Your task to perform on an android device: Go to Maps Image 0: 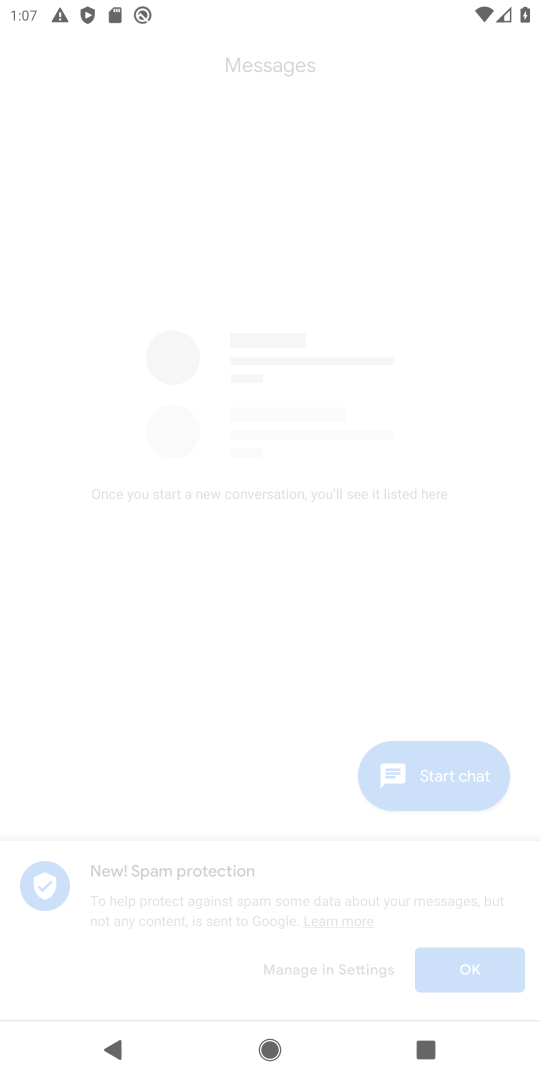
Step 0: drag from (505, 907) to (455, 571)
Your task to perform on an android device: Go to Maps Image 1: 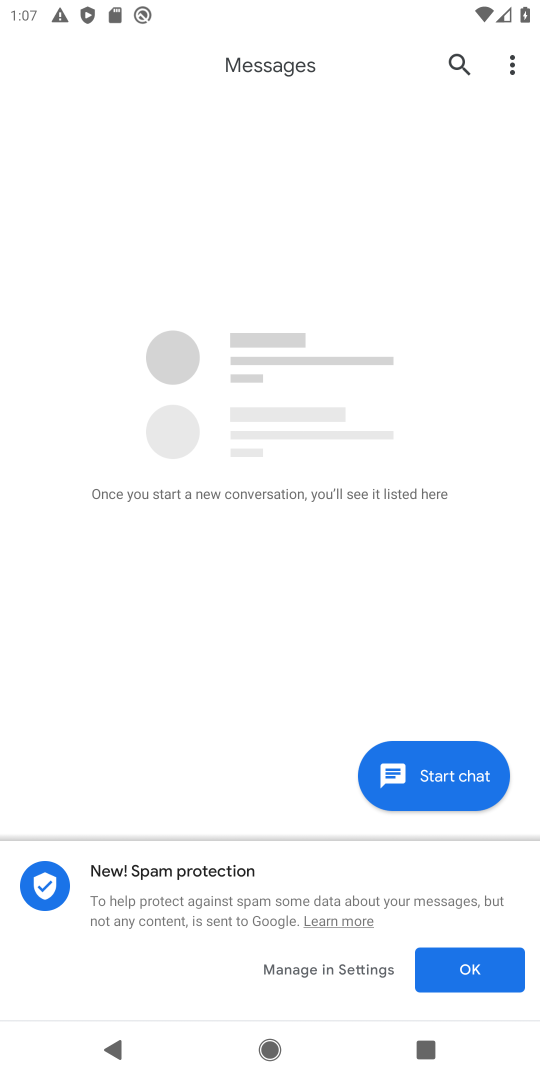
Step 1: press home button
Your task to perform on an android device: Go to Maps Image 2: 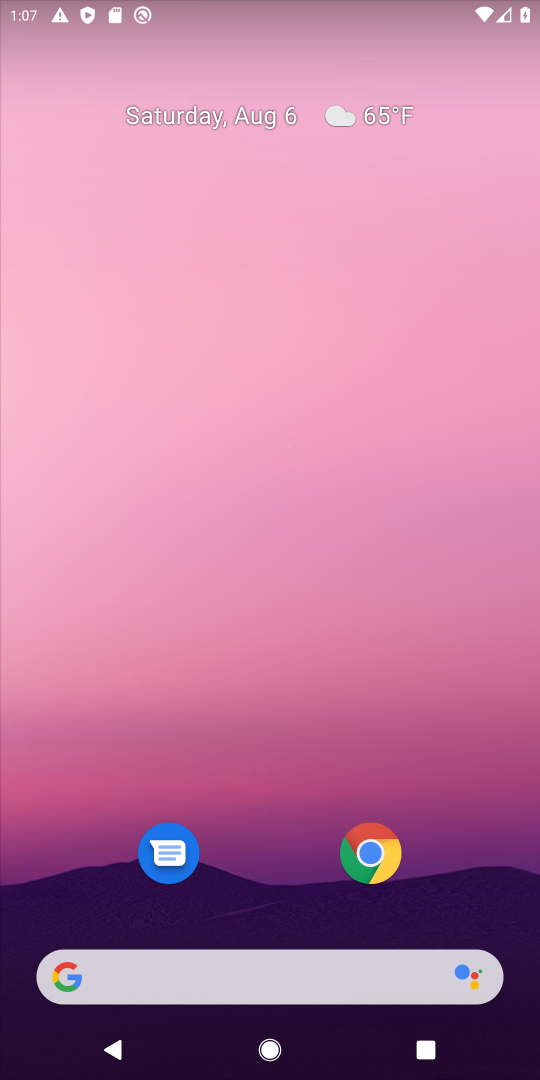
Step 2: drag from (472, 835) to (451, 181)
Your task to perform on an android device: Go to Maps Image 3: 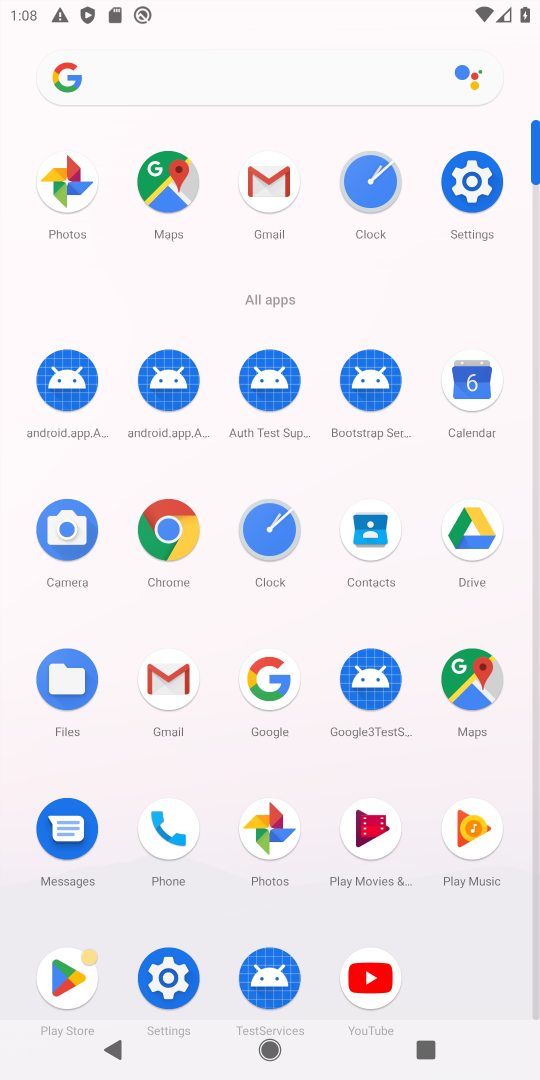
Step 3: click (474, 686)
Your task to perform on an android device: Go to Maps Image 4: 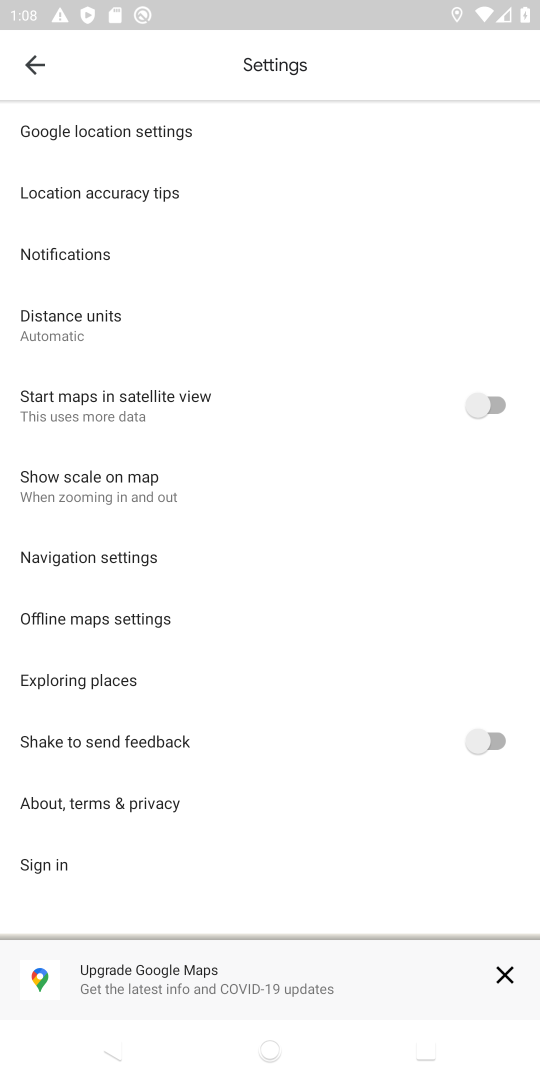
Step 4: task complete